Your task to perform on an android device: change keyboard looks Image 0: 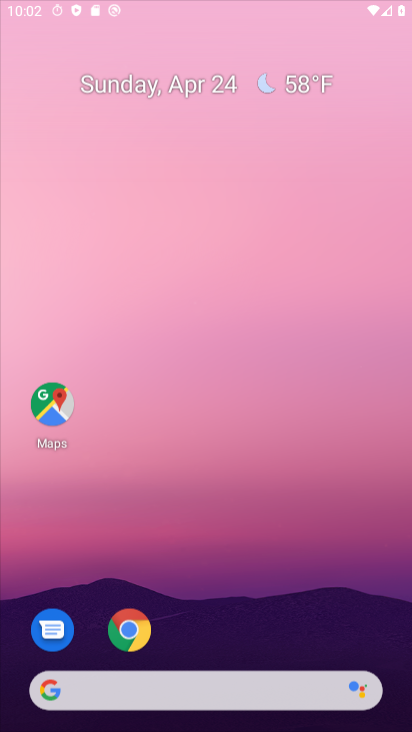
Step 0: drag from (224, 424) to (236, 328)
Your task to perform on an android device: change keyboard looks Image 1: 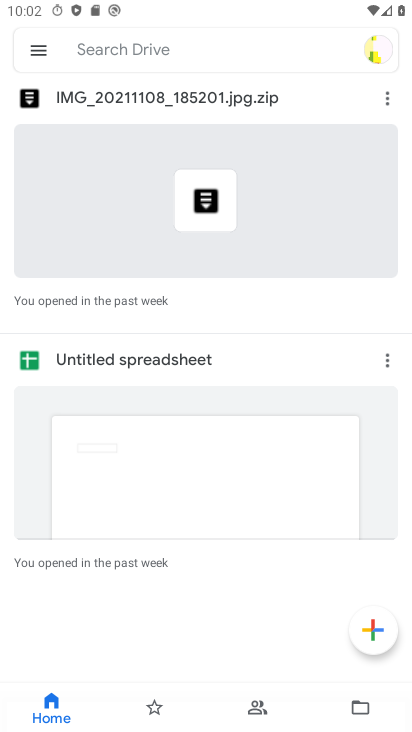
Step 1: press home button
Your task to perform on an android device: change keyboard looks Image 2: 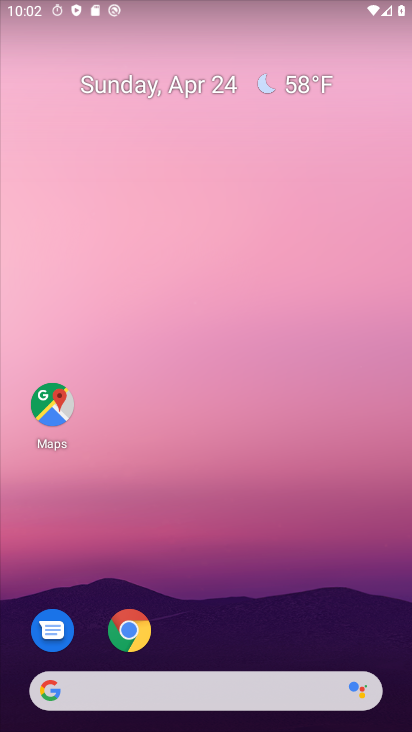
Step 2: drag from (201, 638) to (212, 242)
Your task to perform on an android device: change keyboard looks Image 3: 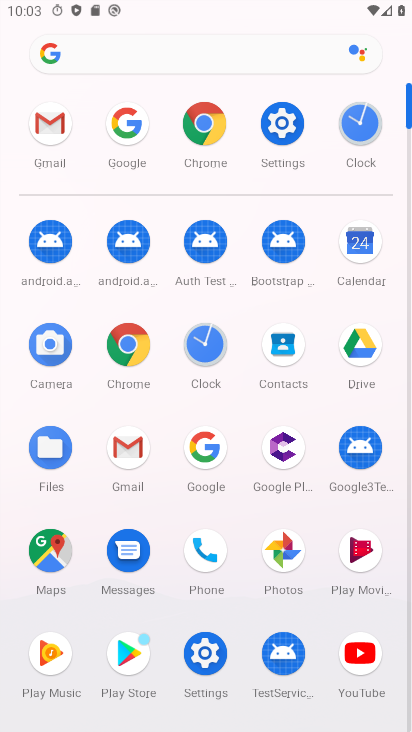
Step 3: click (285, 129)
Your task to perform on an android device: change keyboard looks Image 4: 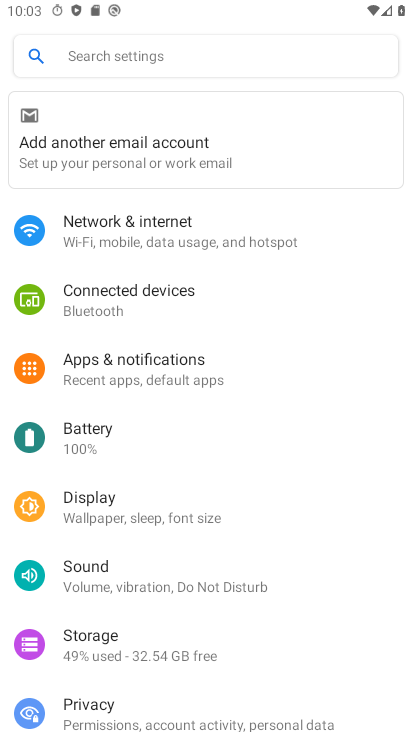
Step 4: drag from (238, 463) to (259, 370)
Your task to perform on an android device: change keyboard looks Image 5: 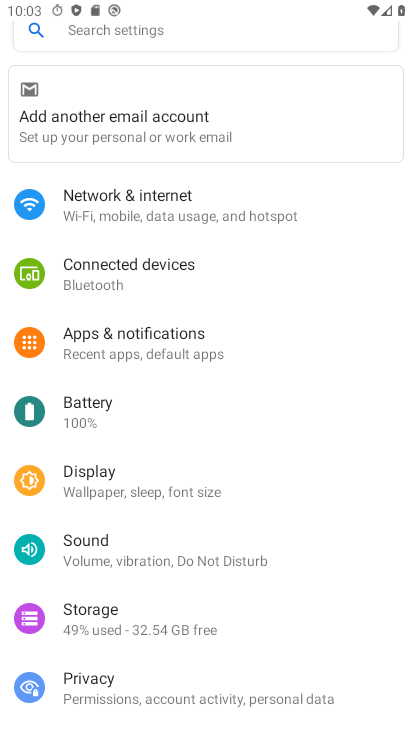
Step 5: drag from (239, 531) to (289, 202)
Your task to perform on an android device: change keyboard looks Image 6: 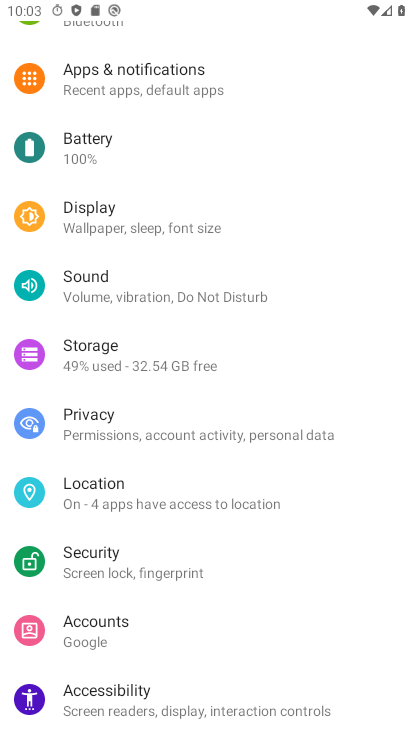
Step 6: drag from (276, 555) to (305, 409)
Your task to perform on an android device: change keyboard looks Image 7: 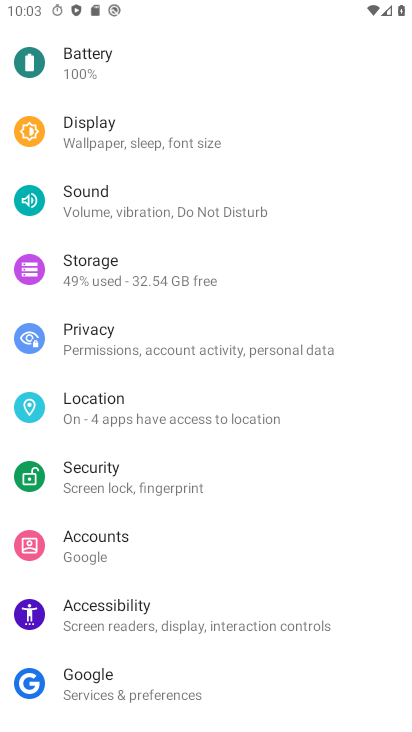
Step 7: drag from (182, 606) to (203, 209)
Your task to perform on an android device: change keyboard looks Image 8: 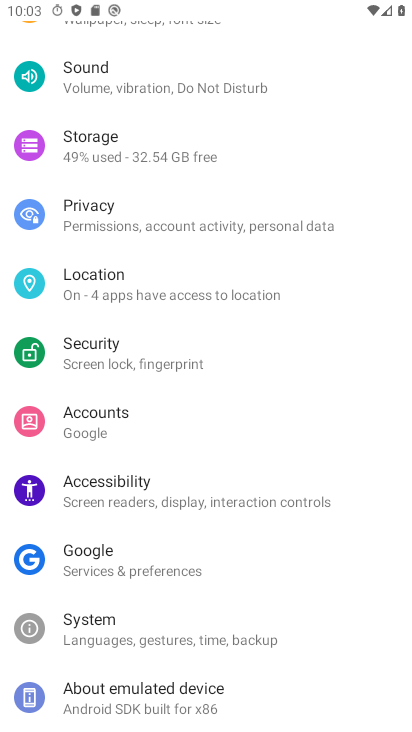
Step 8: click (177, 635)
Your task to perform on an android device: change keyboard looks Image 9: 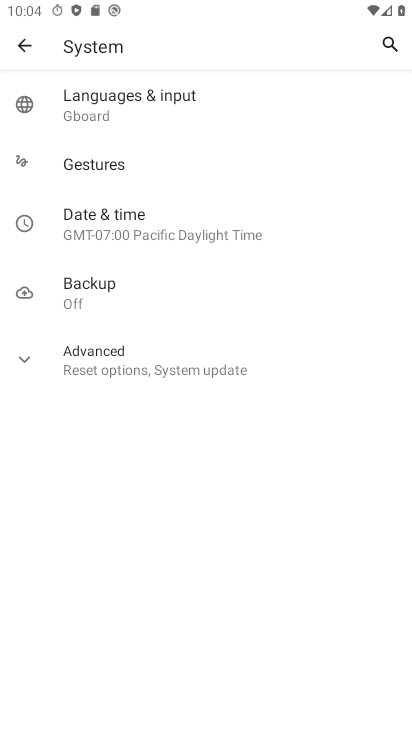
Step 9: click (170, 116)
Your task to perform on an android device: change keyboard looks Image 10: 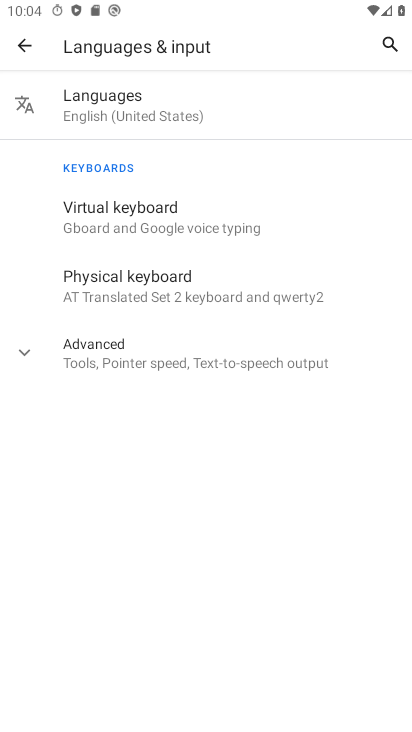
Step 10: click (159, 220)
Your task to perform on an android device: change keyboard looks Image 11: 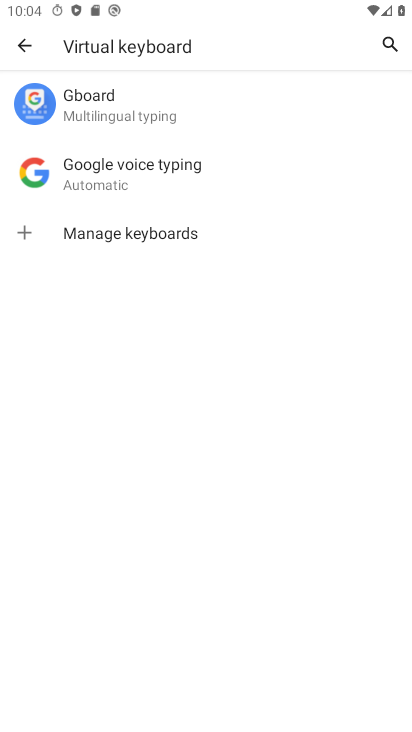
Step 11: click (179, 116)
Your task to perform on an android device: change keyboard looks Image 12: 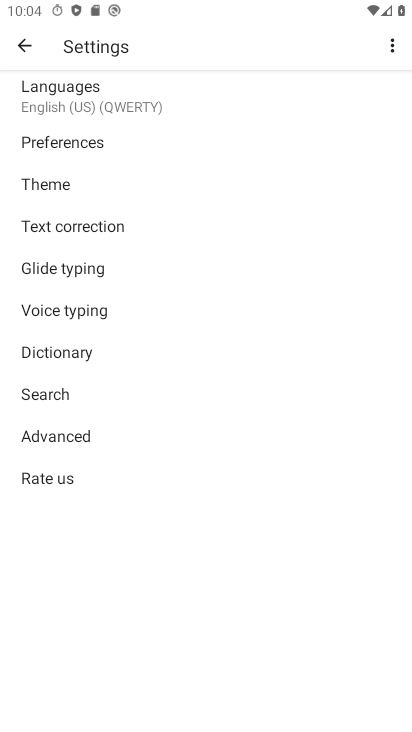
Step 12: click (82, 184)
Your task to perform on an android device: change keyboard looks Image 13: 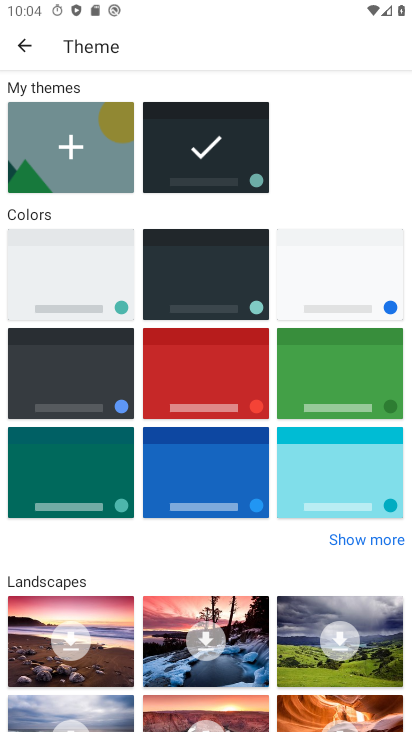
Step 13: click (236, 389)
Your task to perform on an android device: change keyboard looks Image 14: 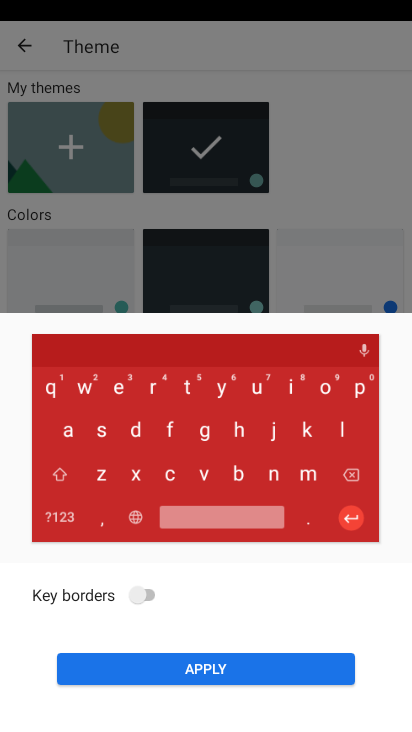
Step 14: click (238, 677)
Your task to perform on an android device: change keyboard looks Image 15: 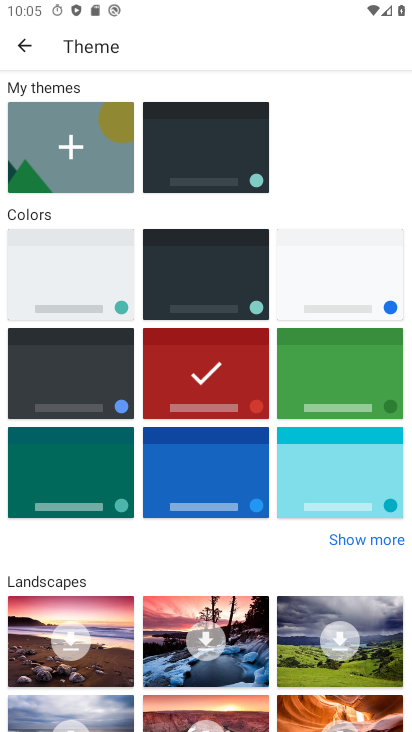
Step 15: task complete